Your task to perform on an android device: Go to Android settings Image 0: 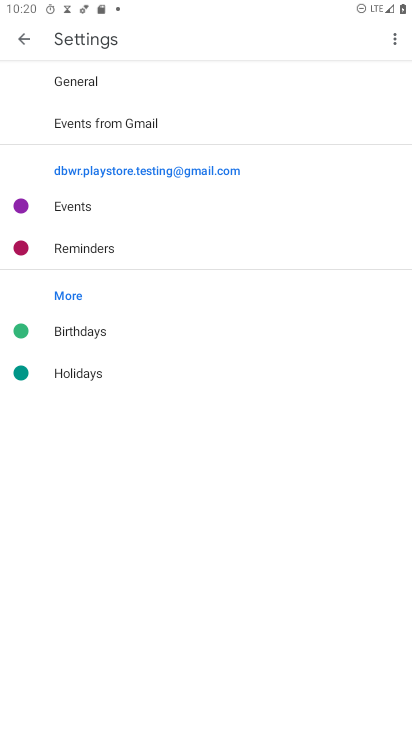
Step 0: press home button
Your task to perform on an android device: Go to Android settings Image 1: 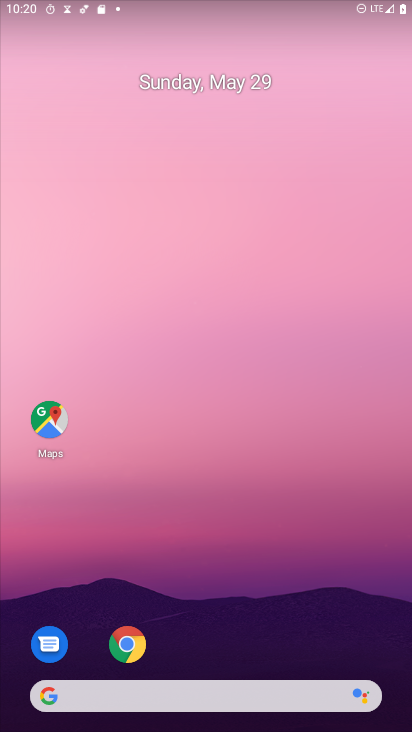
Step 1: drag from (108, 728) to (148, 81)
Your task to perform on an android device: Go to Android settings Image 2: 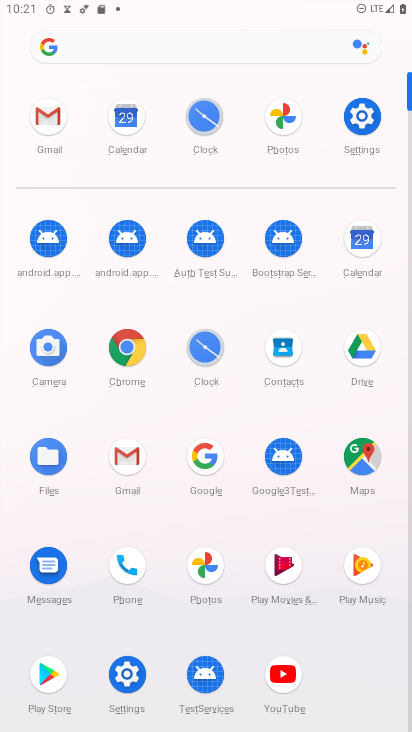
Step 2: click (360, 120)
Your task to perform on an android device: Go to Android settings Image 3: 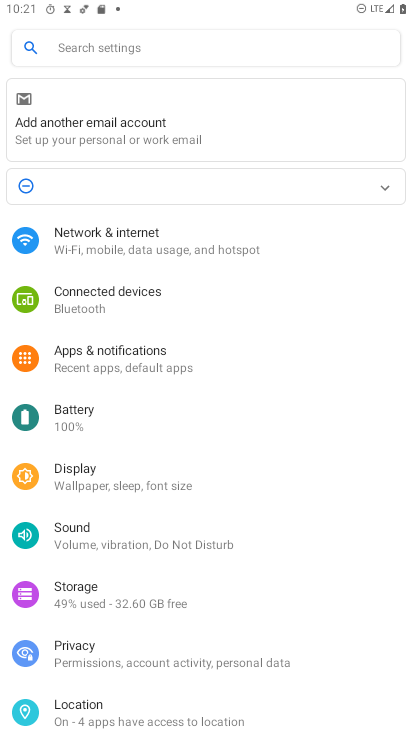
Step 3: task complete